Your task to perform on an android device: turn on translation in the chrome app Image 0: 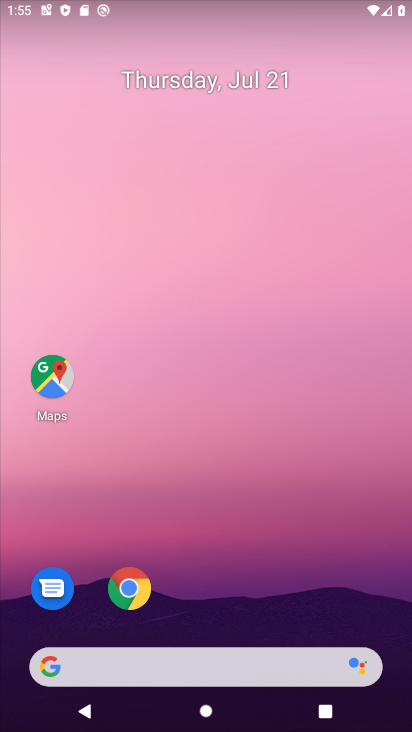
Step 0: drag from (219, 432) to (269, 162)
Your task to perform on an android device: turn on translation in the chrome app Image 1: 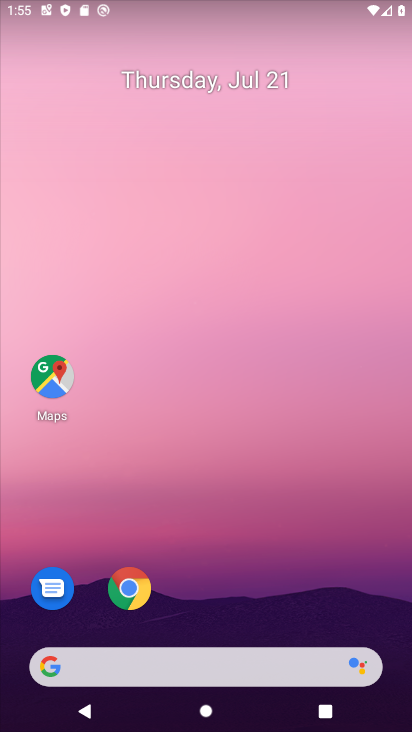
Step 1: click (123, 594)
Your task to perform on an android device: turn on translation in the chrome app Image 2: 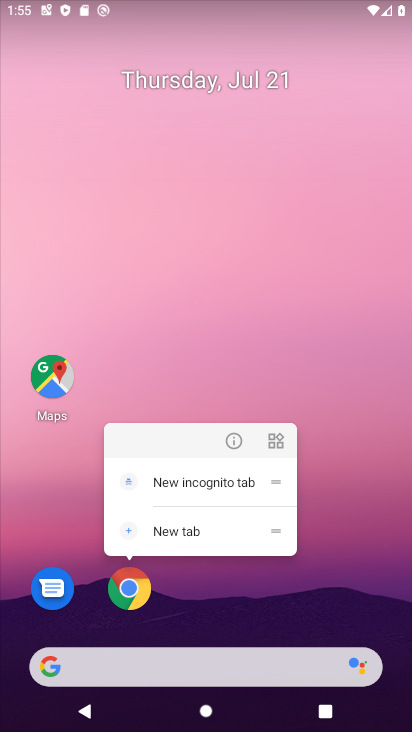
Step 2: click (233, 436)
Your task to perform on an android device: turn on translation in the chrome app Image 3: 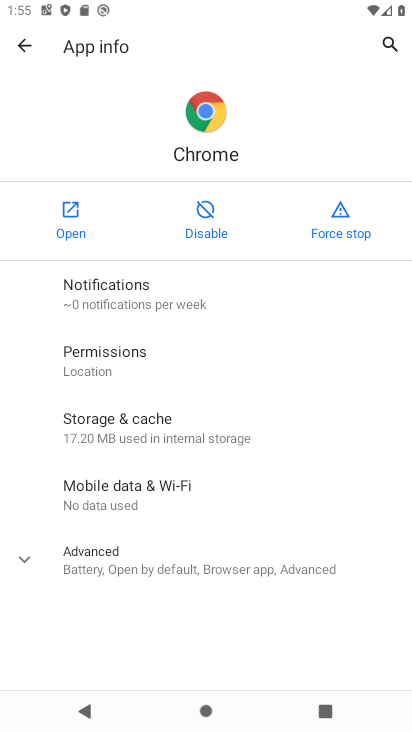
Step 3: click (69, 202)
Your task to perform on an android device: turn on translation in the chrome app Image 4: 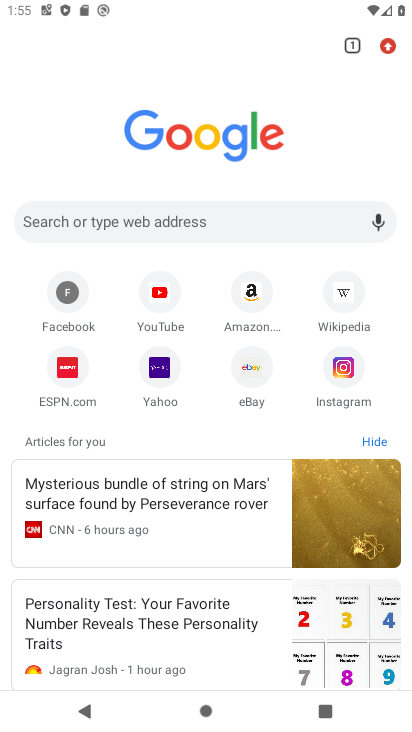
Step 4: drag from (382, 48) to (255, 430)
Your task to perform on an android device: turn on translation in the chrome app Image 5: 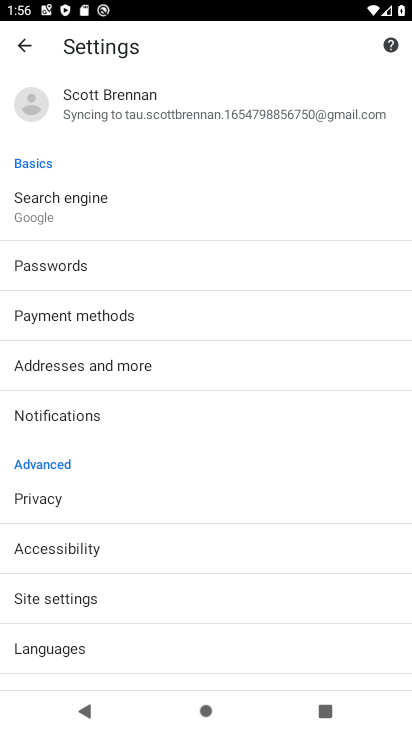
Step 5: click (88, 648)
Your task to perform on an android device: turn on translation in the chrome app Image 6: 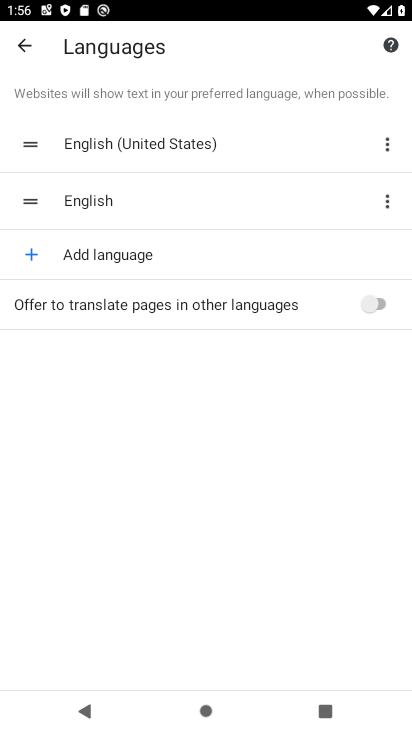
Step 6: click (341, 308)
Your task to perform on an android device: turn on translation in the chrome app Image 7: 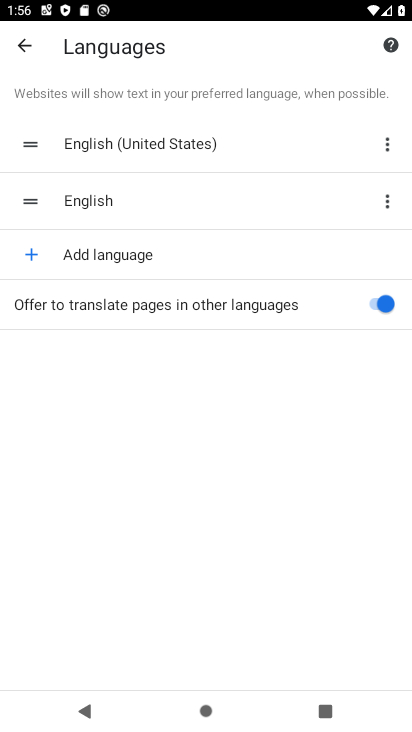
Step 7: task complete